Your task to perform on an android device: Go to ESPN.com Image 0: 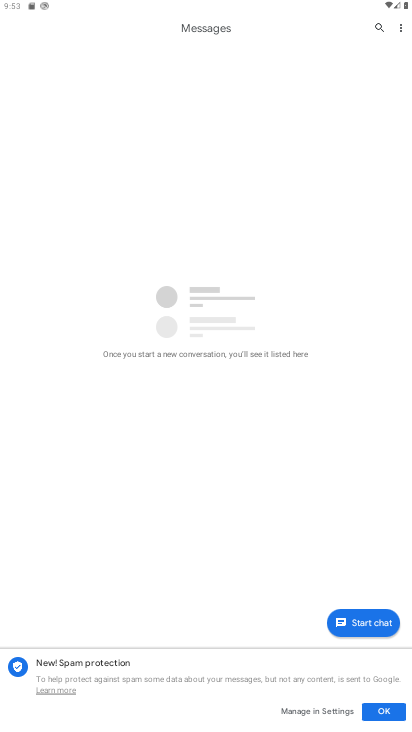
Step 0: press home button
Your task to perform on an android device: Go to ESPN.com Image 1: 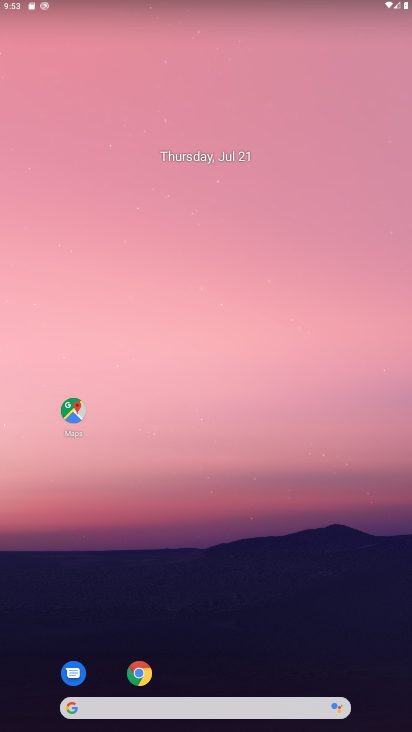
Step 1: drag from (199, 669) to (227, 173)
Your task to perform on an android device: Go to ESPN.com Image 2: 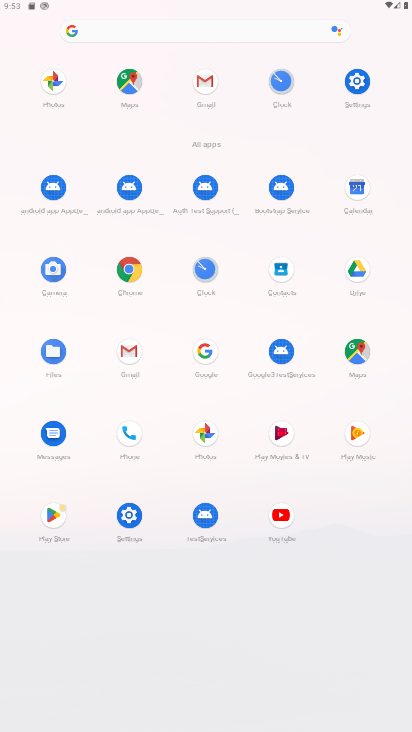
Step 2: click (210, 357)
Your task to perform on an android device: Go to ESPN.com Image 3: 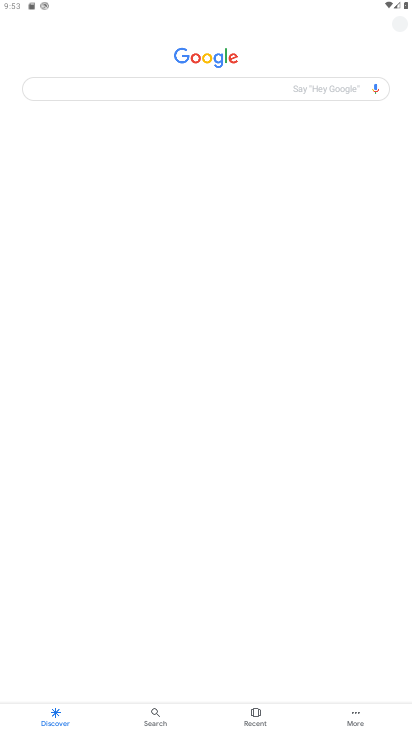
Step 3: click (156, 93)
Your task to perform on an android device: Go to ESPN.com Image 4: 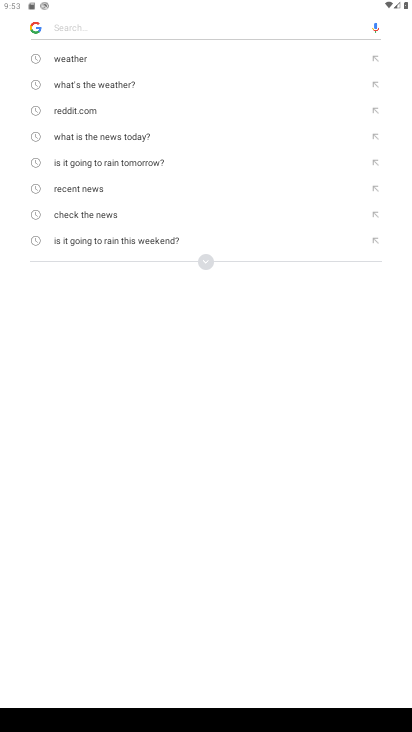
Step 4: type "espn.com"
Your task to perform on an android device: Go to ESPN.com Image 5: 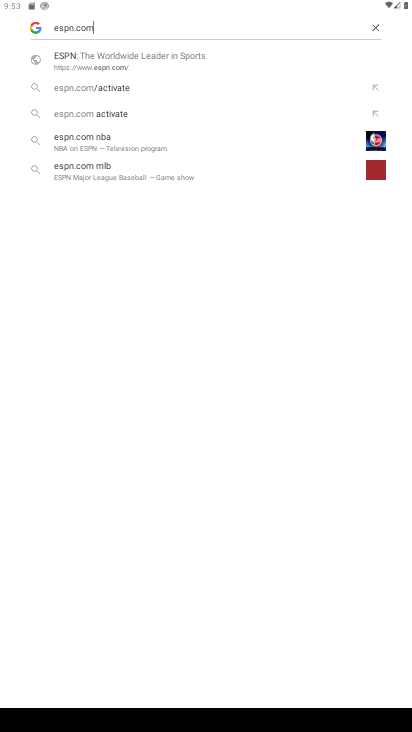
Step 5: click (90, 60)
Your task to perform on an android device: Go to ESPN.com Image 6: 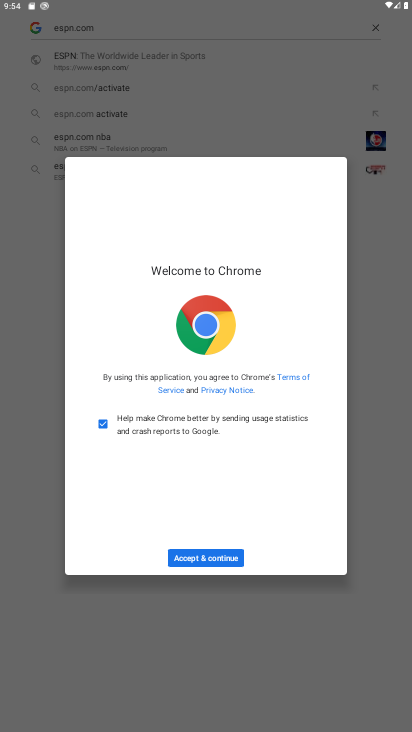
Step 6: click (196, 562)
Your task to perform on an android device: Go to ESPN.com Image 7: 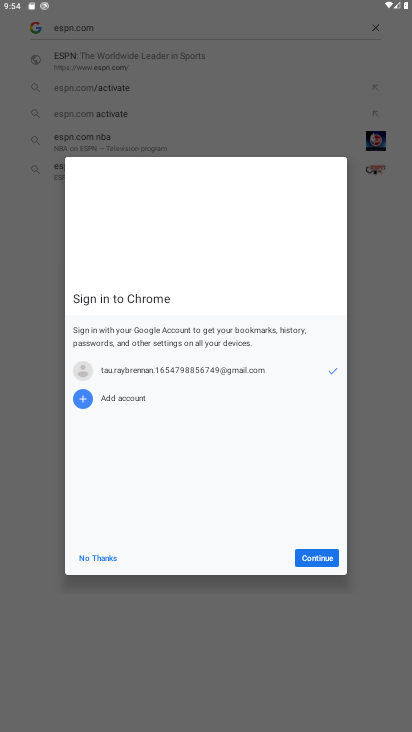
Step 7: click (305, 557)
Your task to perform on an android device: Go to ESPN.com Image 8: 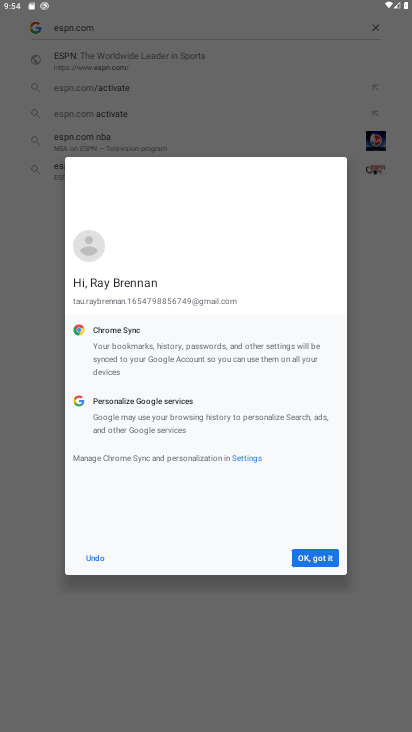
Step 8: click (324, 561)
Your task to perform on an android device: Go to ESPN.com Image 9: 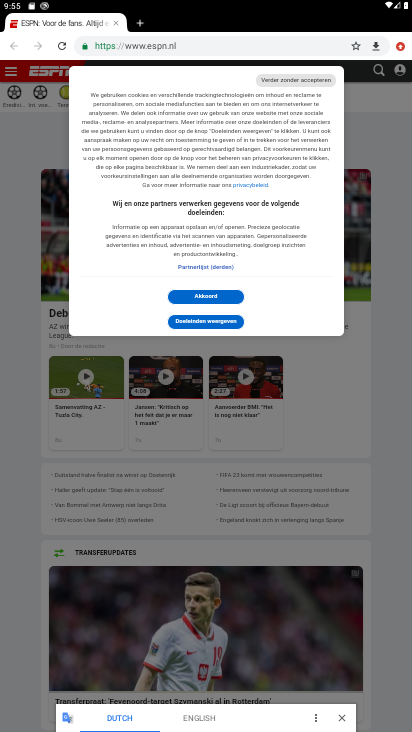
Step 9: task complete